Your task to perform on an android device: Show the shopping cart on amazon. Add "logitech g933" to the cart on amazon, then select checkout. Image 0: 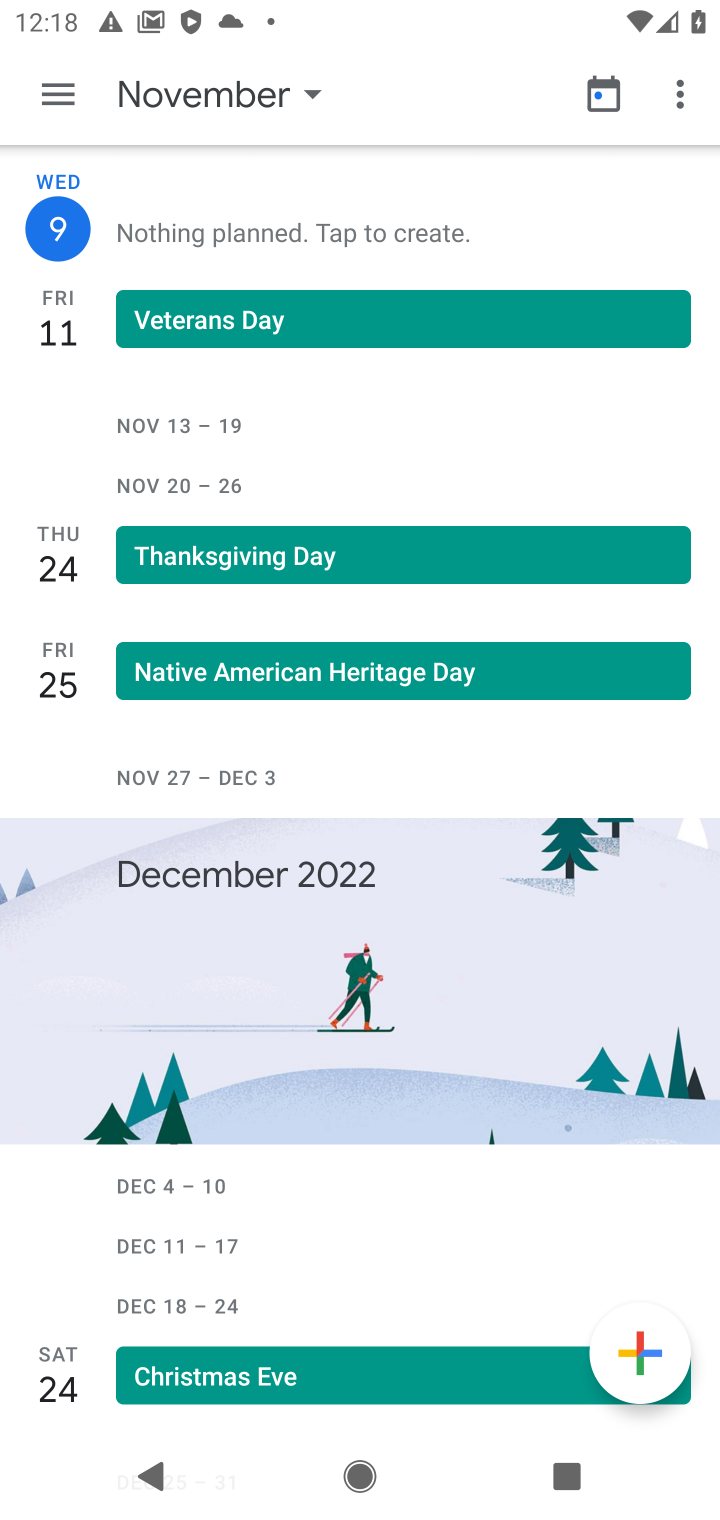
Step 0: press home button
Your task to perform on an android device: Show the shopping cart on amazon. Add "logitech g933" to the cart on amazon, then select checkout. Image 1: 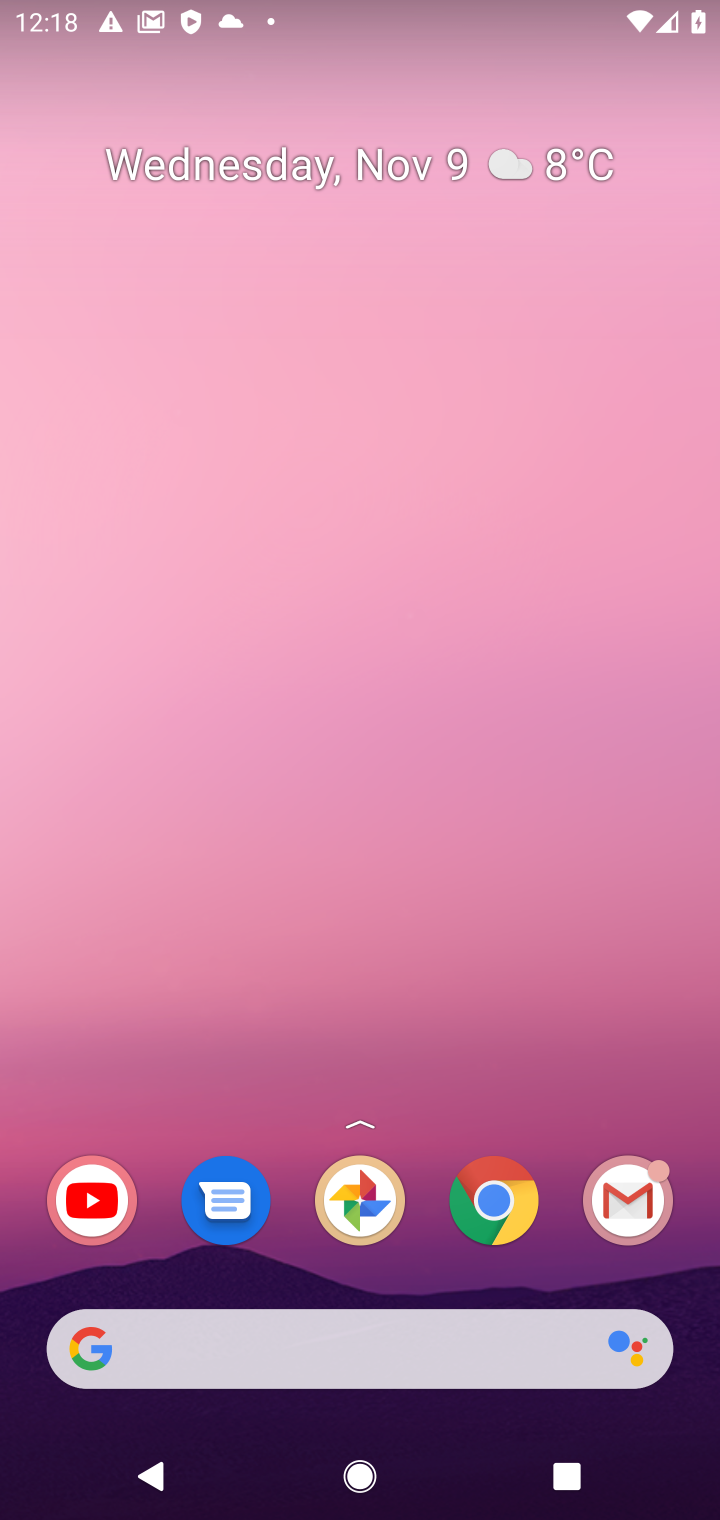
Step 1: click (346, 1347)
Your task to perform on an android device: Show the shopping cart on amazon. Add "logitech g933" to the cart on amazon, then select checkout. Image 2: 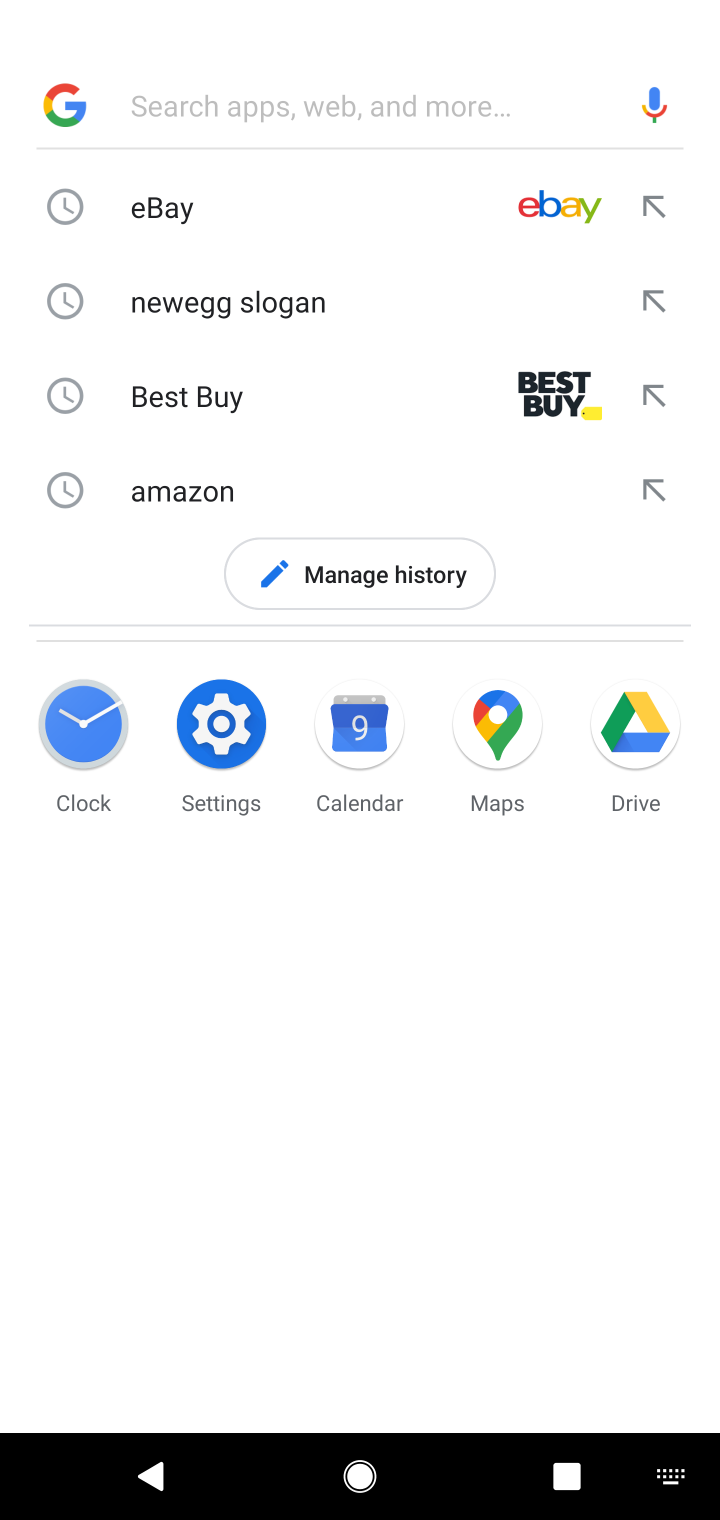
Step 2: click (251, 478)
Your task to perform on an android device: Show the shopping cart on amazon. Add "logitech g933" to the cart on amazon, then select checkout. Image 3: 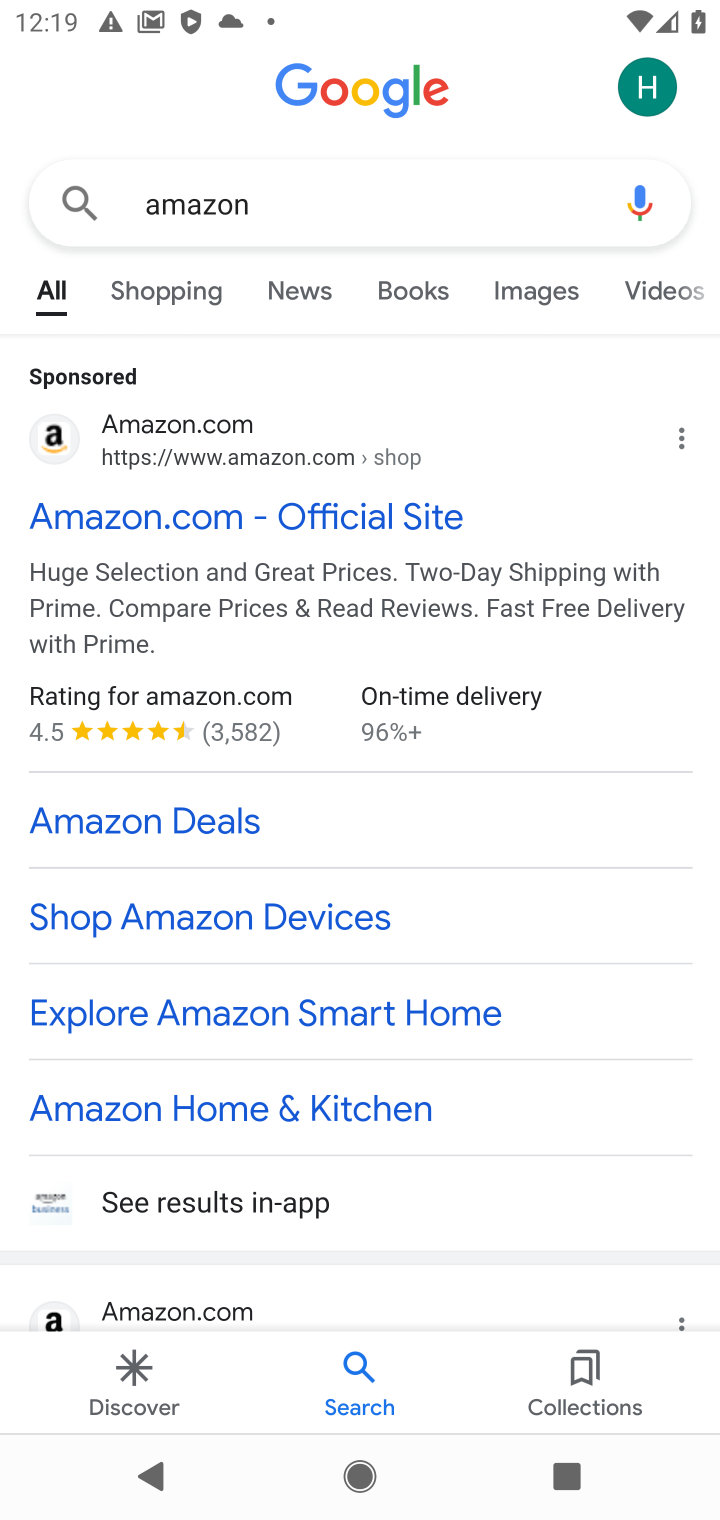
Step 3: click (129, 535)
Your task to perform on an android device: Show the shopping cart on amazon. Add "logitech g933" to the cart on amazon, then select checkout. Image 4: 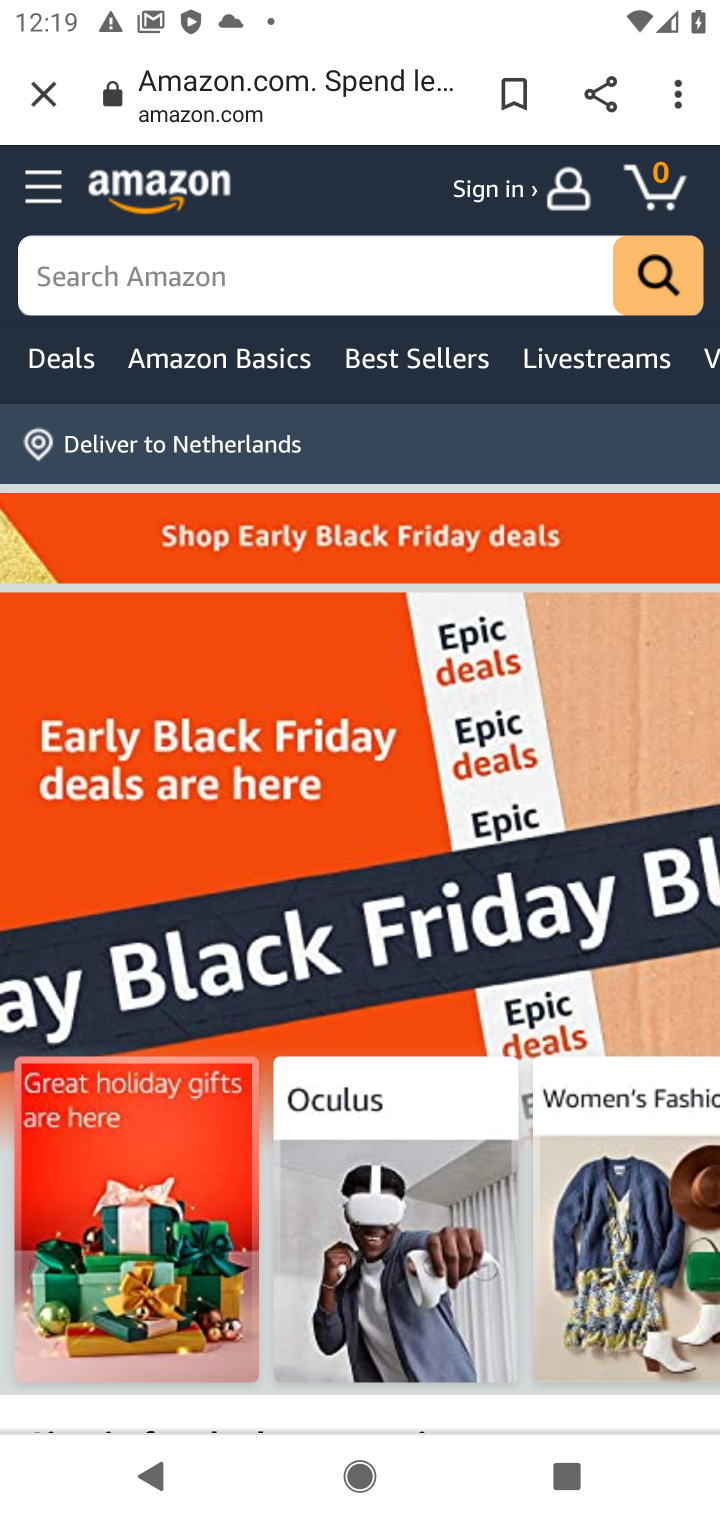
Step 4: task complete